Your task to perform on an android device: delete the emails in spam in the gmail app Image 0: 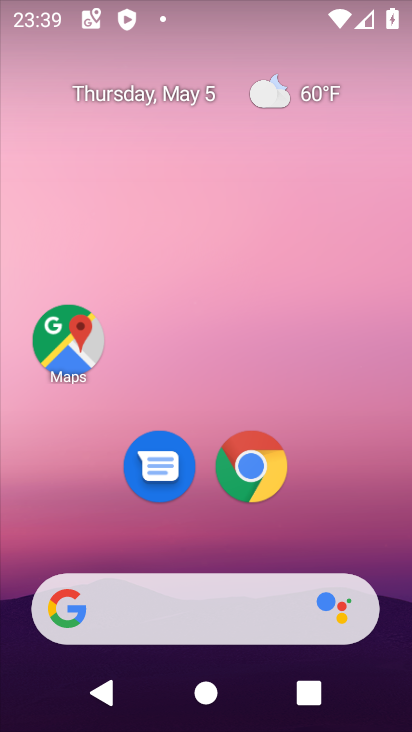
Step 0: drag from (190, 570) to (253, 28)
Your task to perform on an android device: delete the emails in spam in the gmail app Image 1: 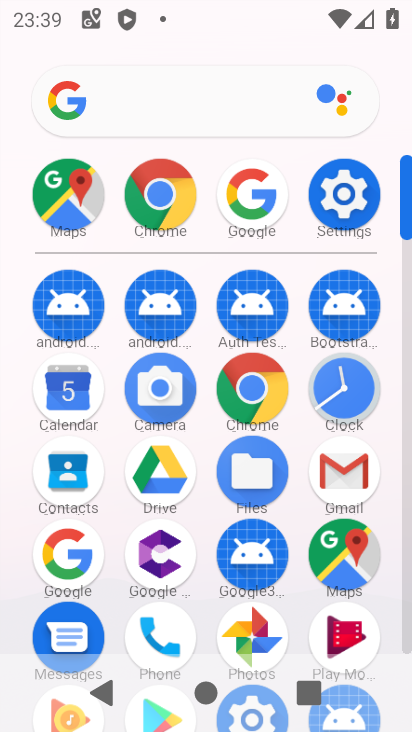
Step 1: click (333, 474)
Your task to perform on an android device: delete the emails in spam in the gmail app Image 2: 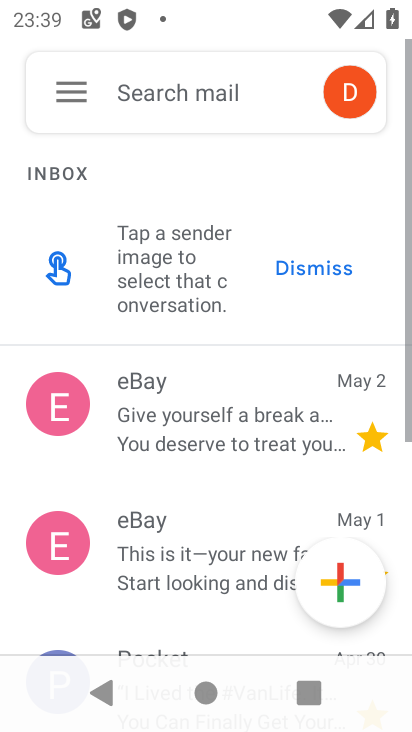
Step 2: click (63, 99)
Your task to perform on an android device: delete the emails in spam in the gmail app Image 3: 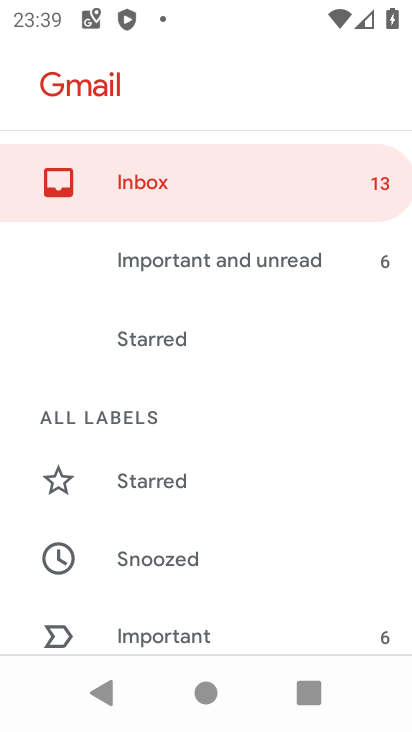
Step 3: drag from (112, 631) to (200, 243)
Your task to perform on an android device: delete the emails in spam in the gmail app Image 4: 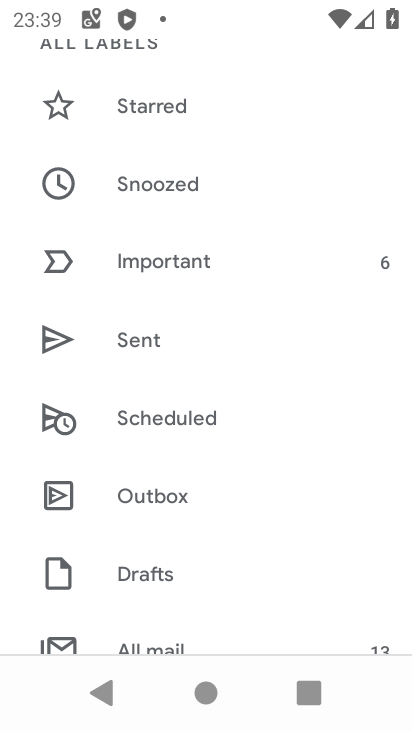
Step 4: drag from (164, 657) to (185, 366)
Your task to perform on an android device: delete the emails in spam in the gmail app Image 5: 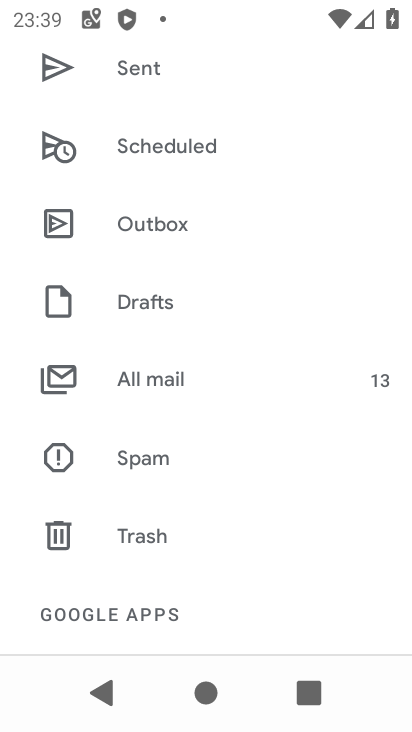
Step 5: drag from (155, 602) to (147, 294)
Your task to perform on an android device: delete the emails in spam in the gmail app Image 6: 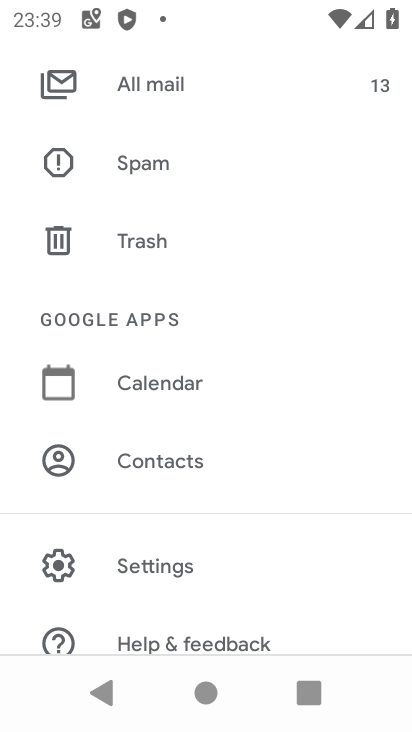
Step 6: click (115, 174)
Your task to perform on an android device: delete the emails in spam in the gmail app Image 7: 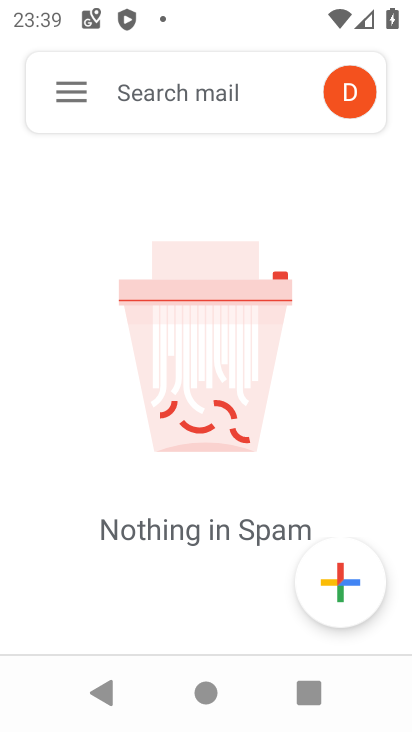
Step 7: task complete